Your task to perform on an android device: star an email in the gmail app Image 0: 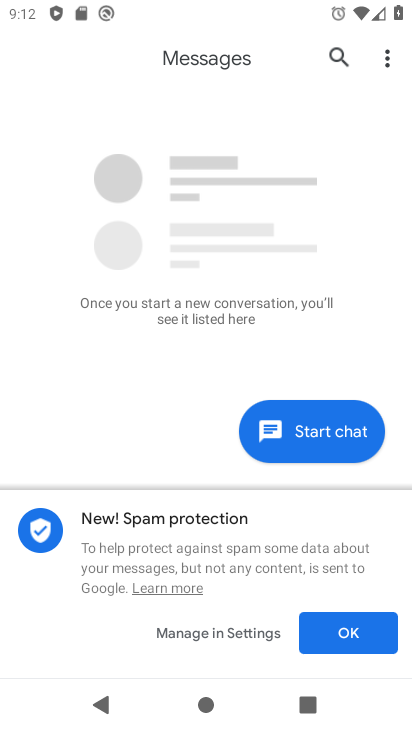
Step 0: press home button
Your task to perform on an android device: star an email in the gmail app Image 1: 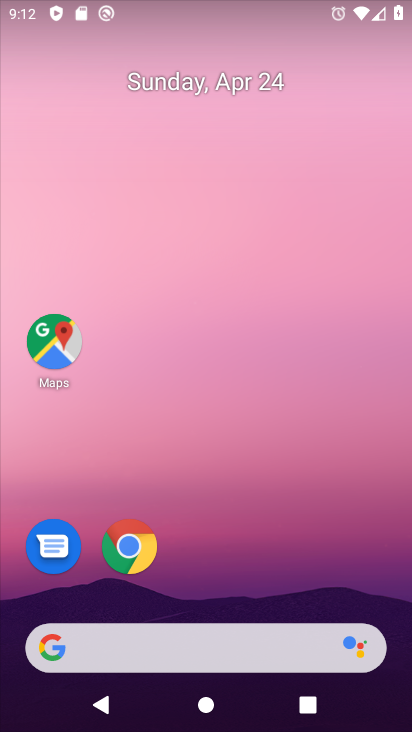
Step 1: drag from (250, 477) to (316, 70)
Your task to perform on an android device: star an email in the gmail app Image 2: 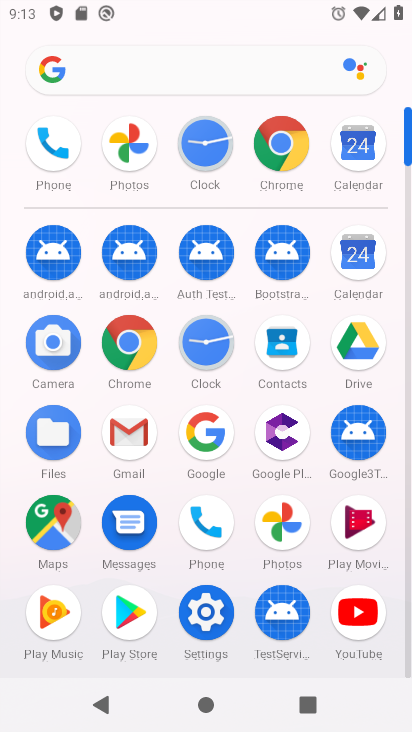
Step 2: click (135, 448)
Your task to perform on an android device: star an email in the gmail app Image 3: 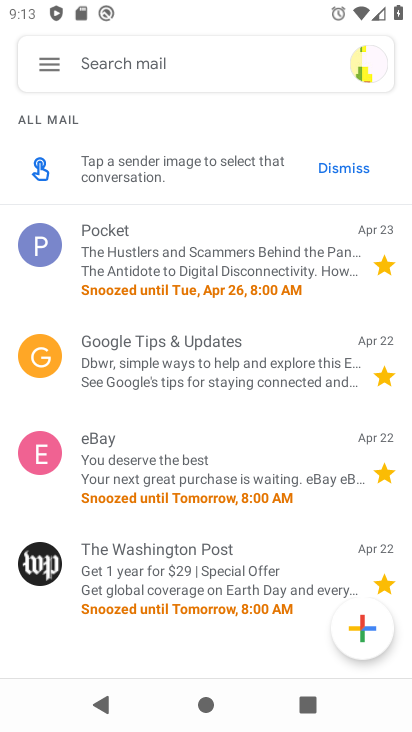
Step 3: task complete